Your task to perform on an android device: turn on translation in the chrome app Image 0: 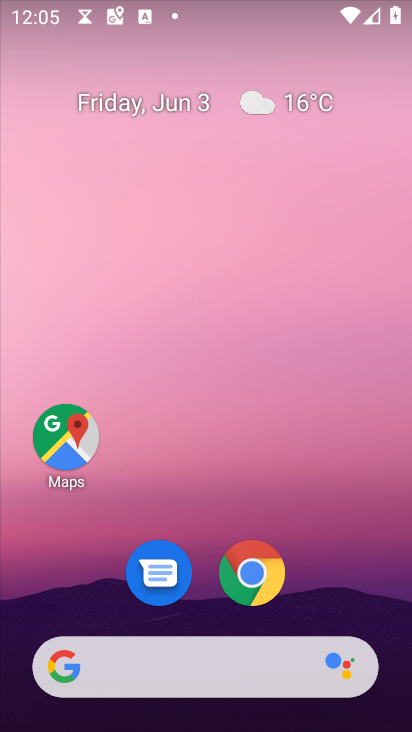
Step 0: drag from (362, 502) to (383, 28)
Your task to perform on an android device: turn on translation in the chrome app Image 1: 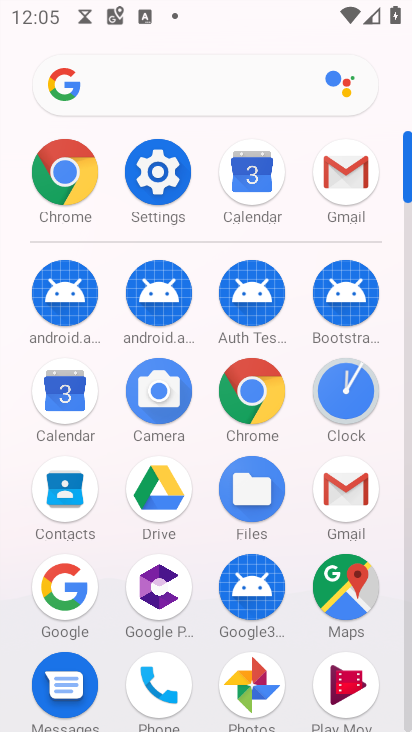
Step 1: click (60, 164)
Your task to perform on an android device: turn on translation in the chrome app Image 2: 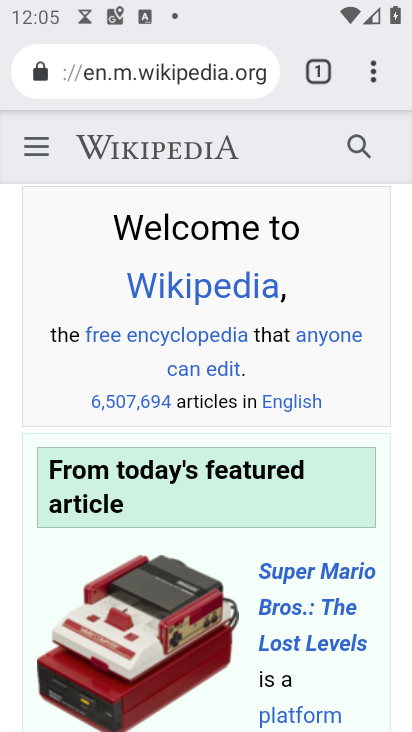
Step 2: drag from (359, 81) to (162, 580)
Your task to perform on an android device: turn on translation in the chrome app Image 3: 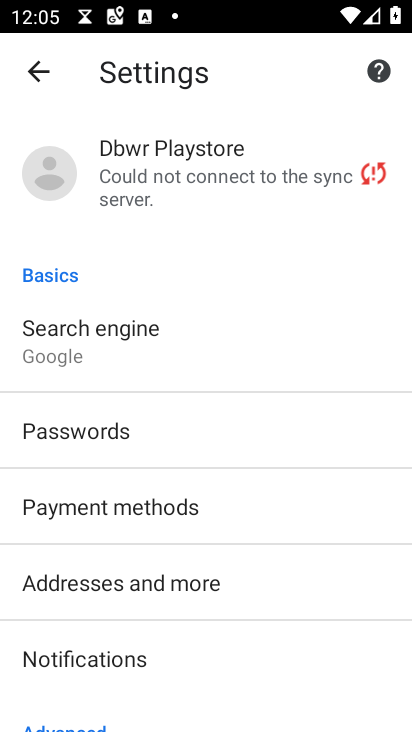
Step 3: drag from (162, 580) to (264, 177)
Your task to perform on an android device: turn on translation in the chrome app Image 4: 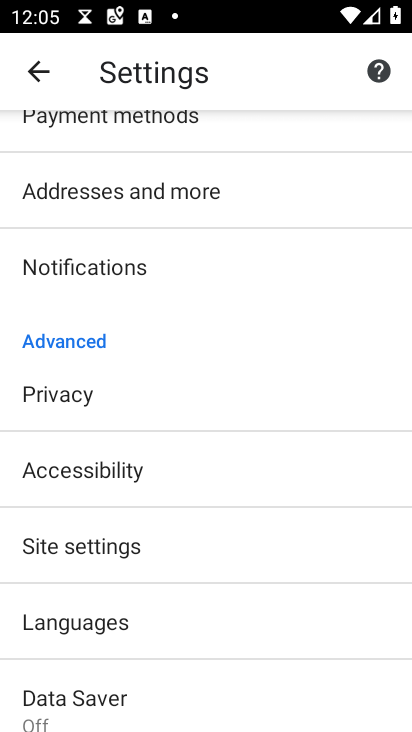
Step 4: drag from (183, 613) to (299, 208)
Your task to perform on an android device: turn on translation in the chrome app Image 5: 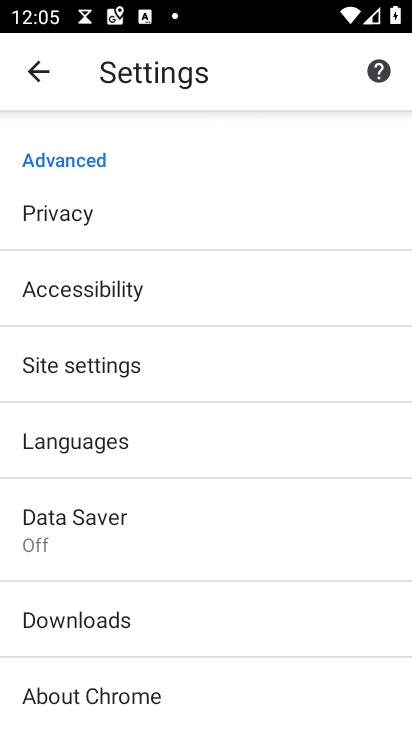
Step 5: click (51, 434)
Your task to perform on an android device: turn on translation in the chrome app Image 6: 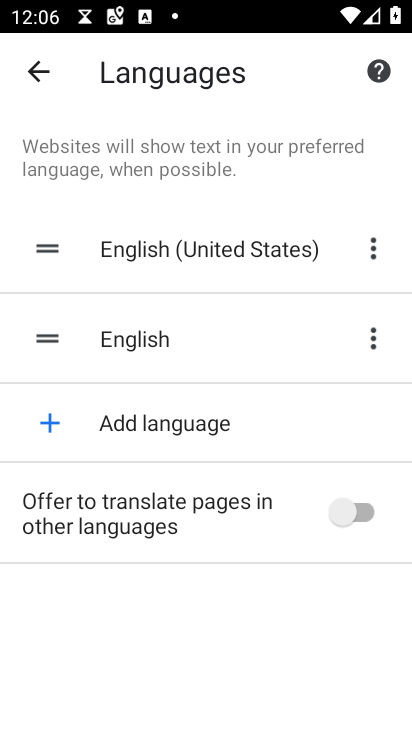
Step 6: click (364, 529)
Your task to perform on an android device: turn on translation in the chrome app Image 7: 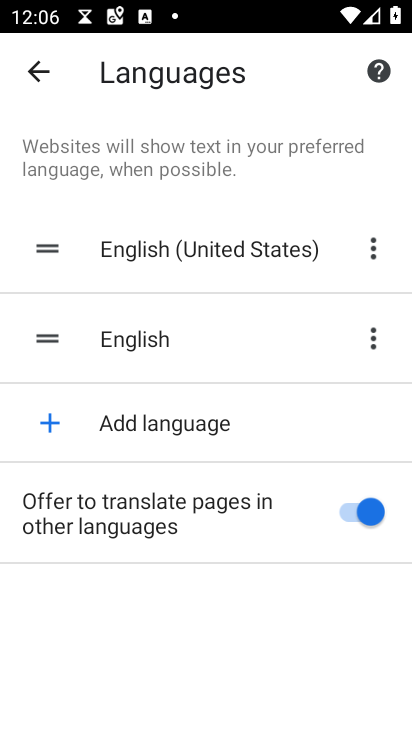
Step 7: task complete